Your task to perform on an android device: add a contact Image 0: 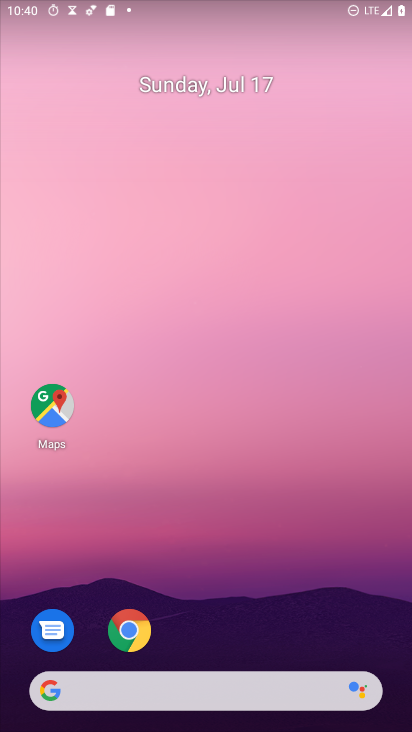
Step 0: drag from (200, 685) to (402, 473)
Your task to perform on an android device: add a contact Image 1: 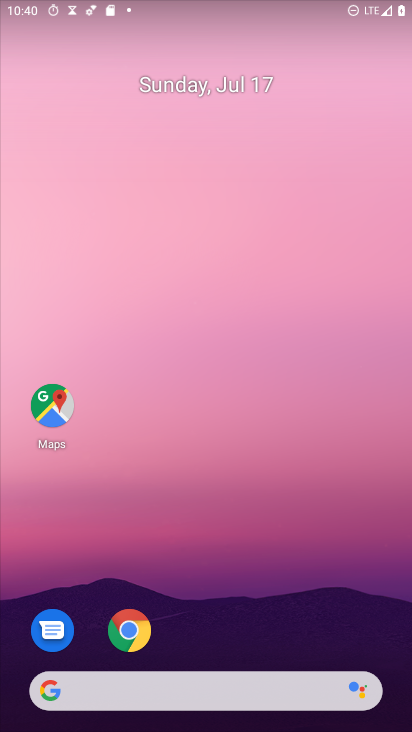
Step 1: drag from (259, 681) to (259, 56)
Your task to perform on an android device: add a contact Image 2: 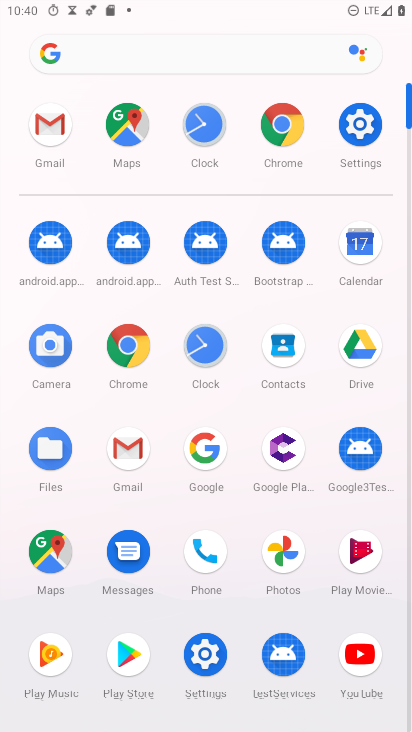
Step 2: click (287, 356)
Your task to perform on an android device: add a contact Image 3: 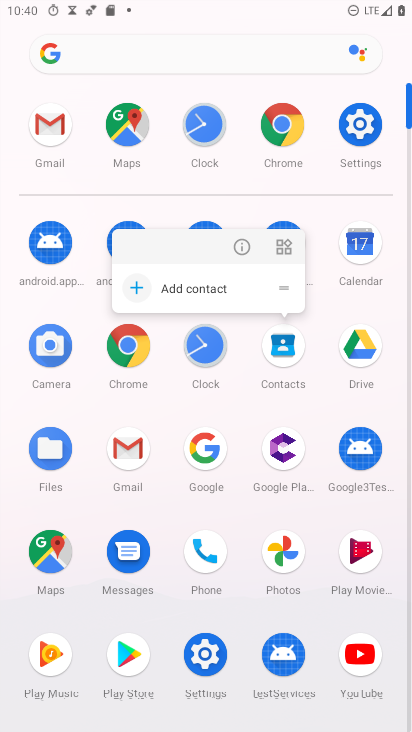
Step 3: click (285, 339)
Your task to perform on an android device: add a contact Image 4: 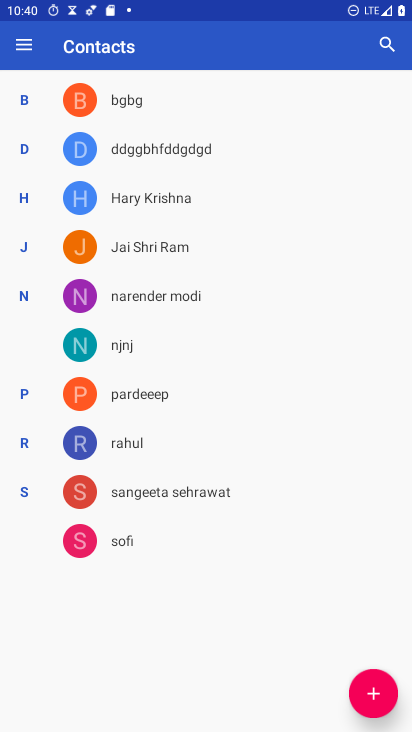
Step 4: click (367, 693)
Your task to perform on an android device: add a contact Image 5: 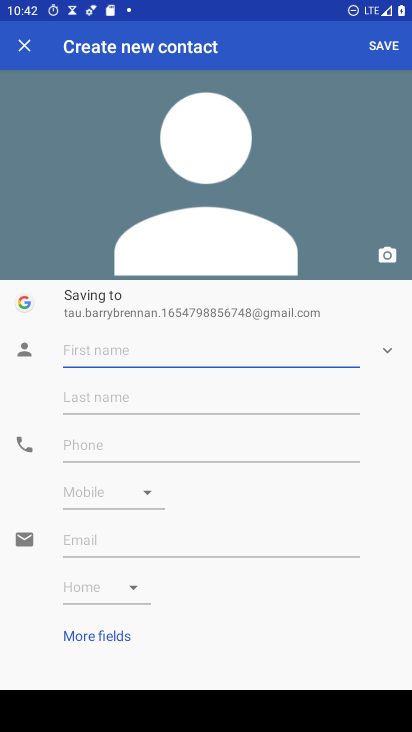
Step 5: type "vikram"
Your task to perform on an android device: add a contact Image 6: 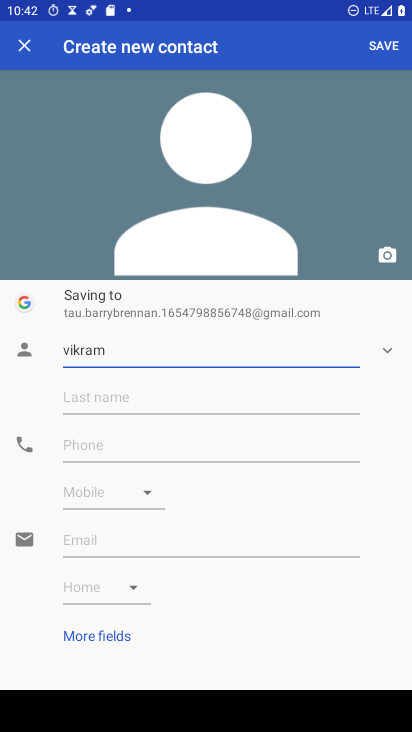
Step 6: click (150, 438)
Your task to perform on an android device: add a contact Image 7: 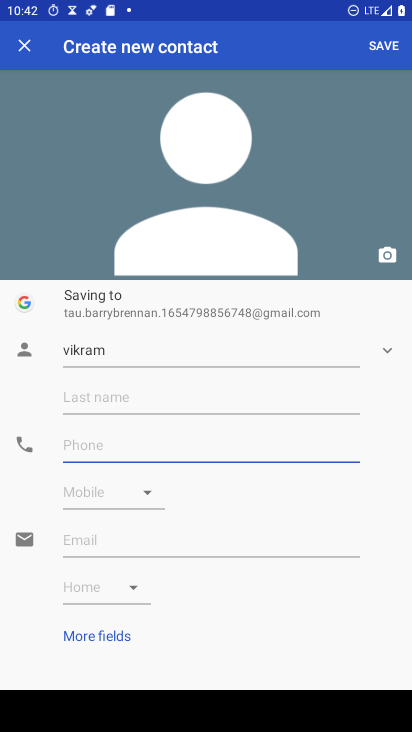
Step 7: type "987656789"
Your task to perform on an android device: add a contact Image 8: 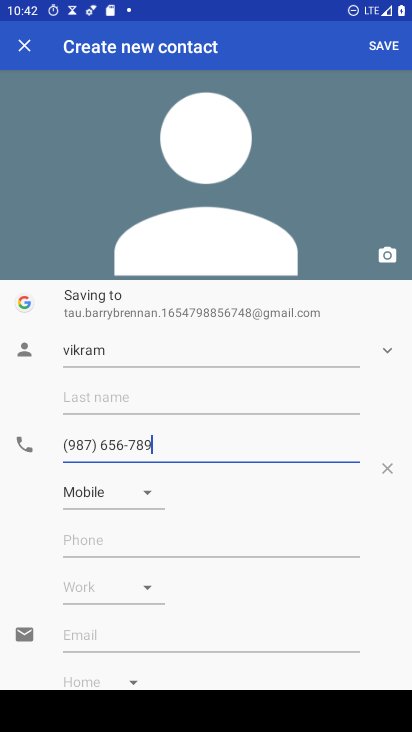
Step 8: click (395, 51)
Your task to perform on an android device: add a contact Image 9: 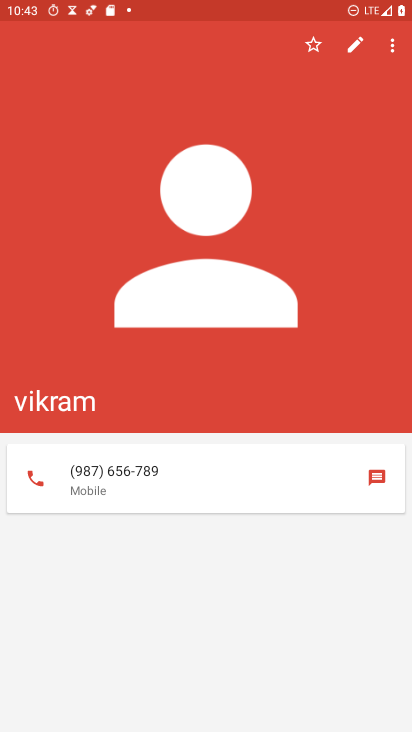
Step 9: task complete